Your task to perform on an android device: turn on priority inbox in the gmail app Image 0: 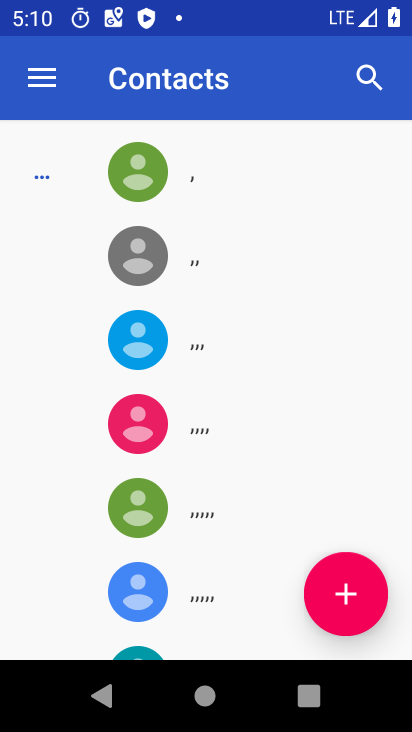
Step 0: press home button
Your task to perform on an android device: turn on priority inbox in the gmail app Image 1: 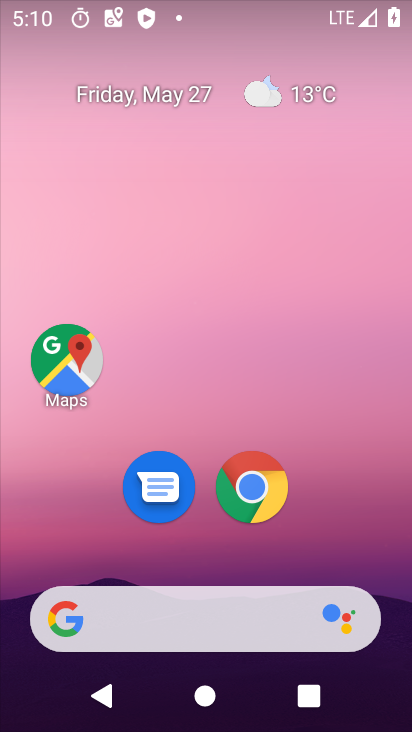
Step 1: drag from (351, 491) to (311, 108)
Your task to perform on an android device: turn on priority inbox in the gmail app Image 2: 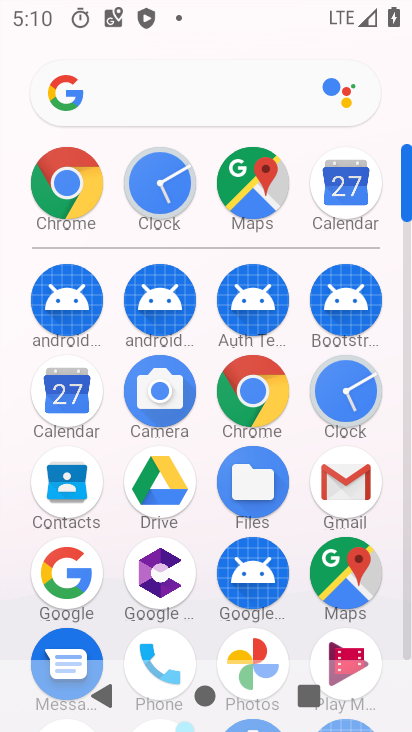
Step 2: click (356, 474)
Your task to perform on an android device: turn on priority inbox in the gmail app Image 3: 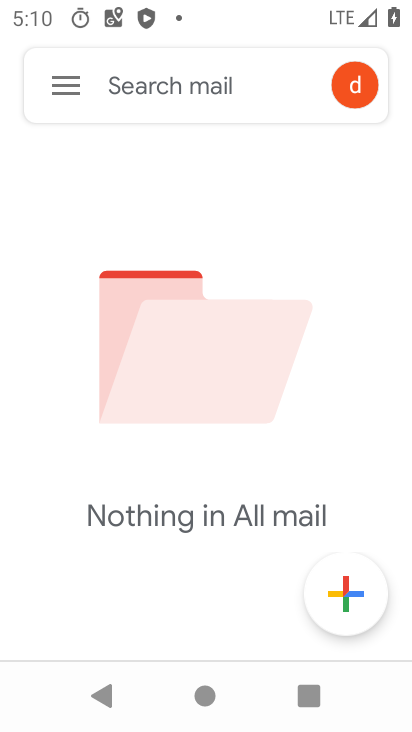
Step 3: click (49, 89)
Your task to perform on an android device: turn on priority inbox in the gmail app Image 4: 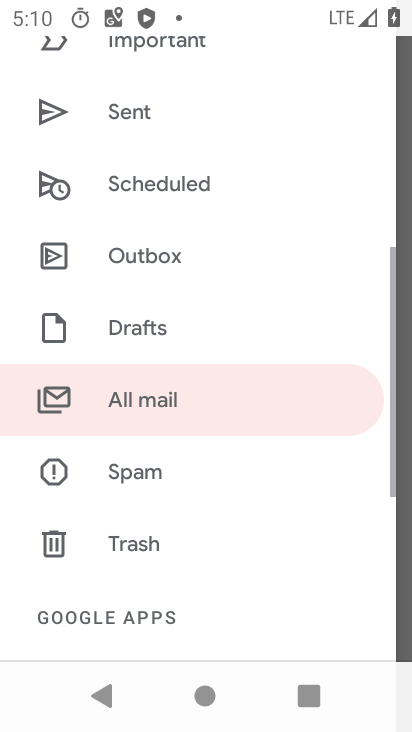
Step 4: drag from (221, 526) to (259, 124)
Your task to perform on an android device: turn on priority inbox in the gmail app Image 5: 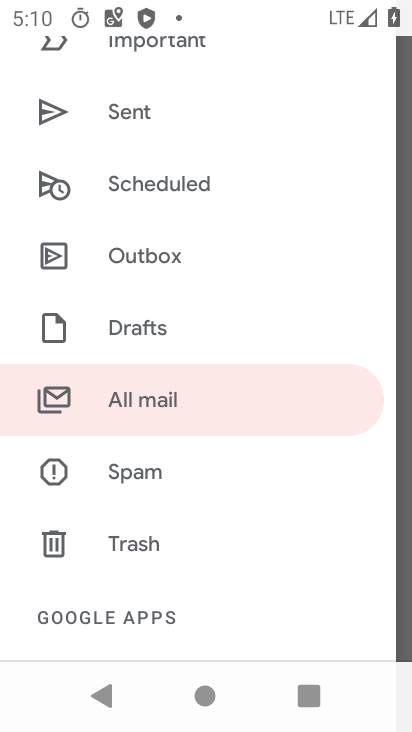
Step 5: drag from (205, 558) to (224, 214)
Your task to perform on an android device: turn on priority inbox in the gmail app Image 6: 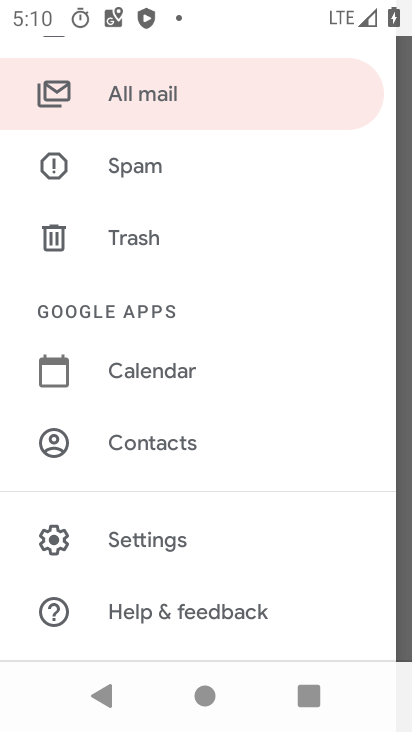
Step 6: click (159, 538)
Your task to perform on an android device: turn on priority inbox in the gmail app Image 7: 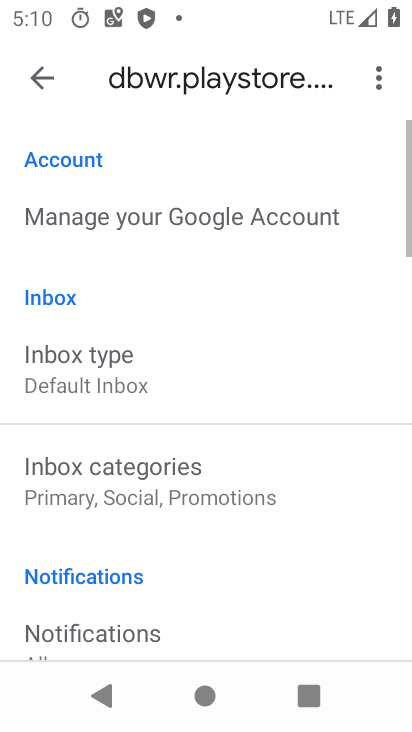
Step 7: drag from (181, 557) to (208, 154)
Your task to perform on an android device: turn on priority inbox in the gmail app Image 8: 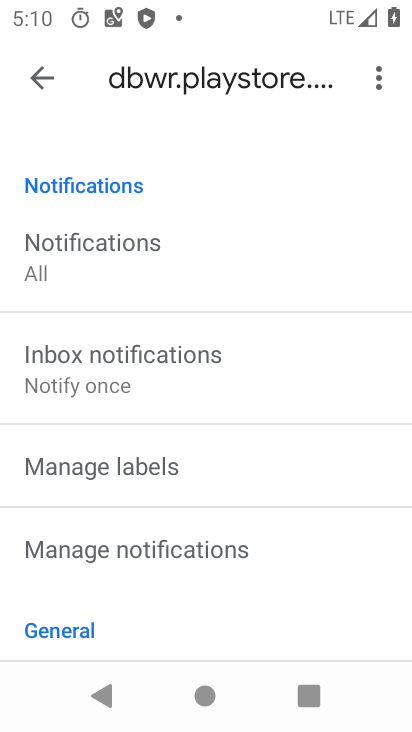
Step 8: drag from (194, 527) to (239, 170)
Your task to perform on an android device: turn on priority inbox in the gmail app Image 9: 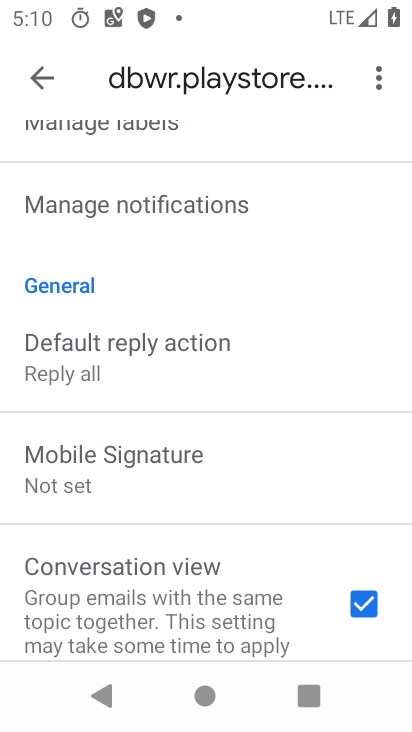
Step 9: drag from (274, 259) to (295, 89)
Your task to perform on an android device: turn on priority inbox in the gmail app Image 10: 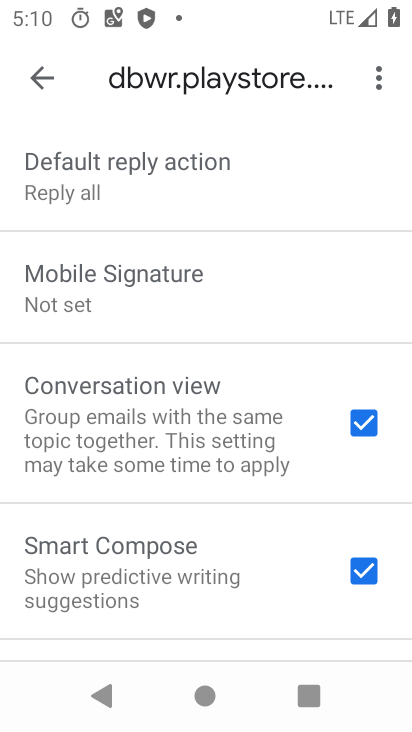
Step 10: drag from (271, 228) to (258, 681)
Your task to perform on an android device: turn on priority inbox in the gmail app Image 11: 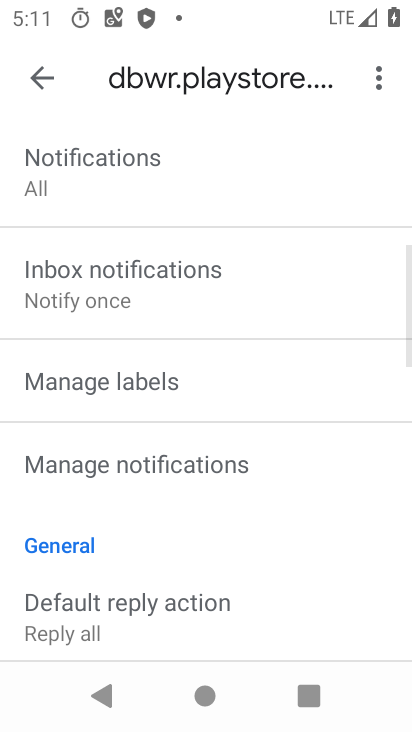
Step 11: drag from (270, 256) to (261, 663)
Your task to perform on an android device: turn on priority inbox in the gmail app Image 12: 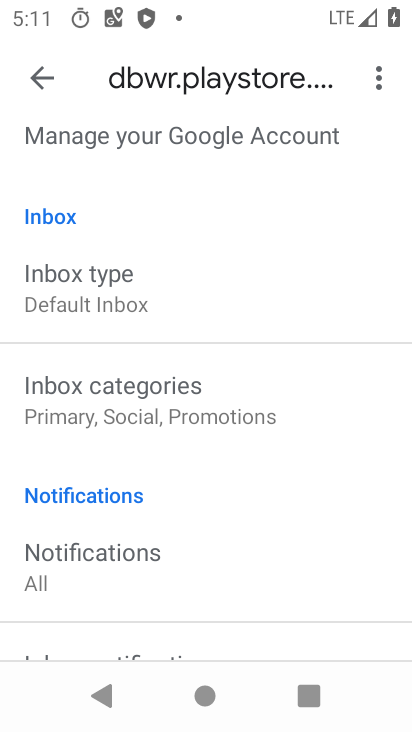
Step 12: click (130, 302)
Your task to perform on an android device: turn on priority inbox in the gmail app Image 13: 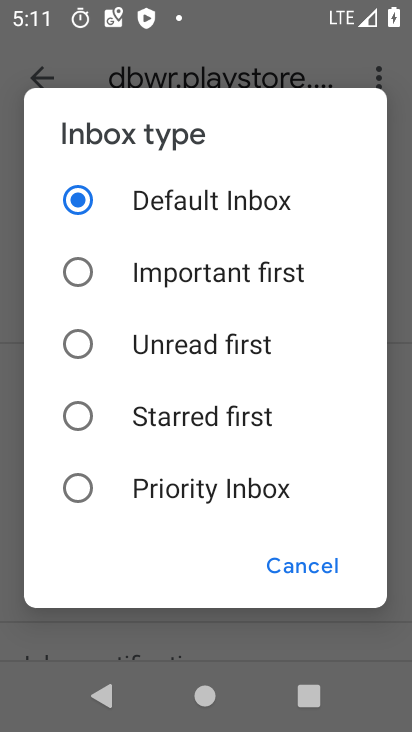
Step 13: task complete